Your task to perform on an android device: Go to battery settings Image 0: 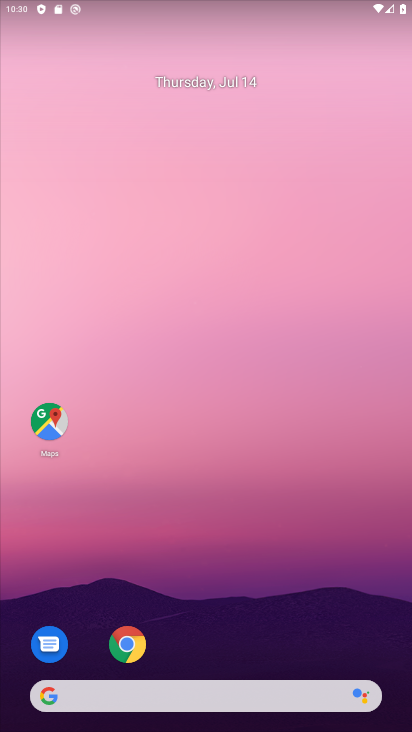
Step 0: drag from (213, 705) to (271, 188)
Your task to perform on an android device: Go to battery settings Image 1: 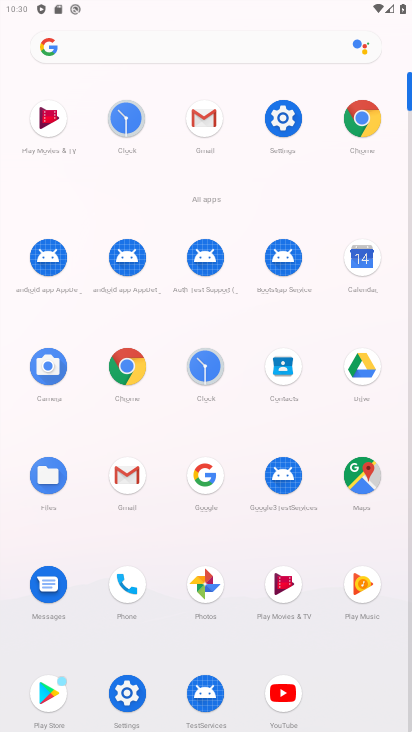
Step 1: click (130, 694)
Your task to perform on an android device: Go to battery settings Image 2: 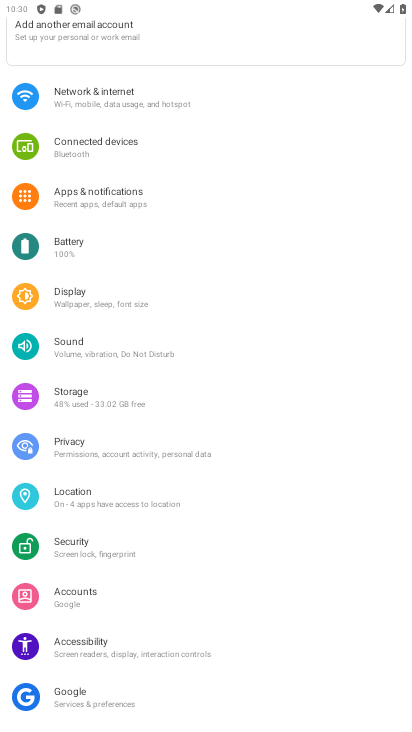
Step 2: click (83, 250)
Your task to perform on an android device: Go to battery settings Image 3: 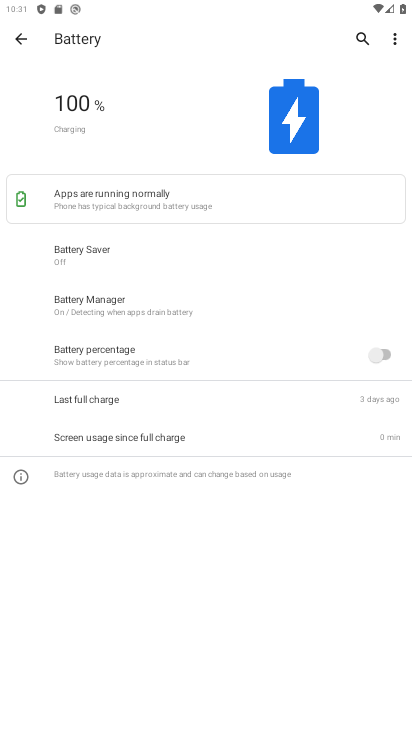
Step 3: task complete